Your task to perform on an android device: Go to sound settings Image 0: 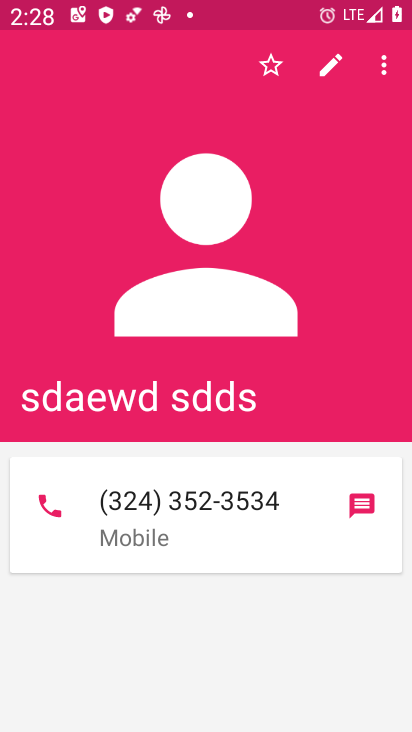
Step 0: press home button
Your task to perform on an android device: Go to sound settings Image 1: 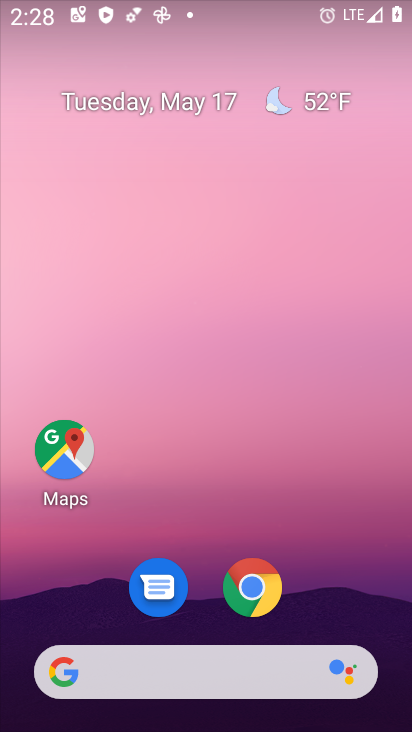
Step 1: drag from (371, 560) to (237, 7)
Your task to perform on an android device: Go to sound settings Image 2: 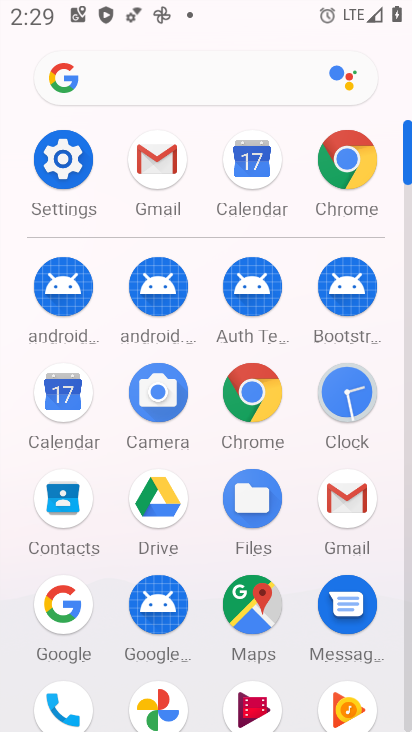
Step 2: click (73, 209)
Your task to perform on an android device: Go to sound settings Image 3: 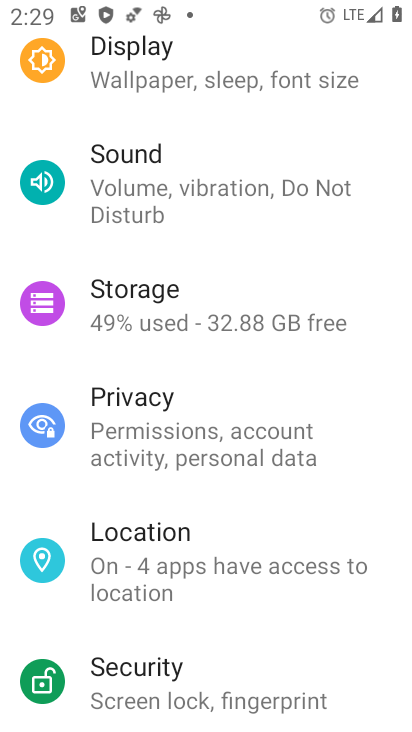
Step 3: click (169, 226)
Your task to perform on an android device: Go to sound settings Image 4: 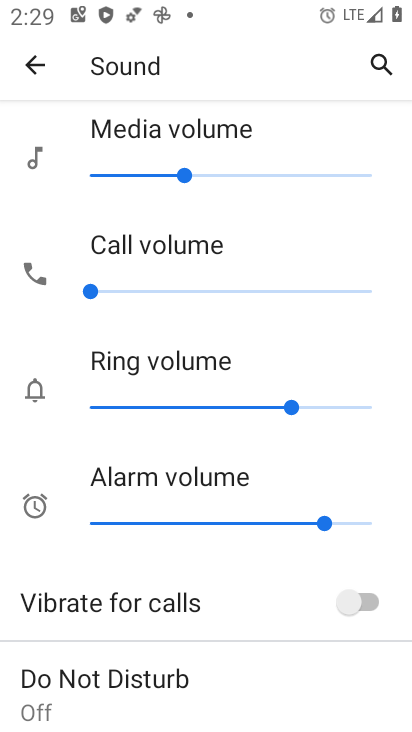
Step 4: click (11, 69)
Your task to perform on an android device: Go to sound settings Image 5: 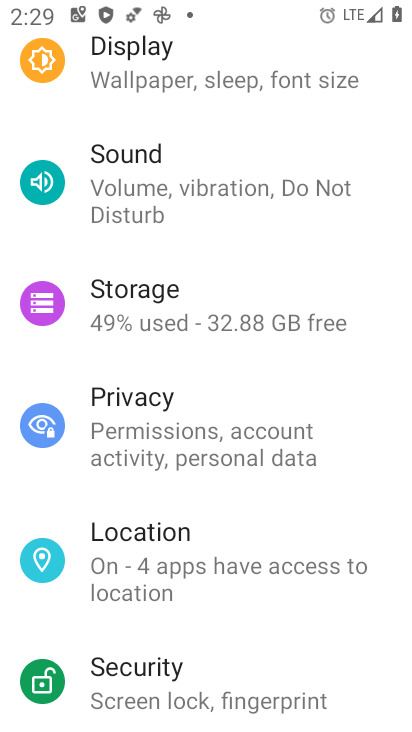
Step 5: click (187, 194)
Your task to perform on an android device: Go to sound settings Image 6: 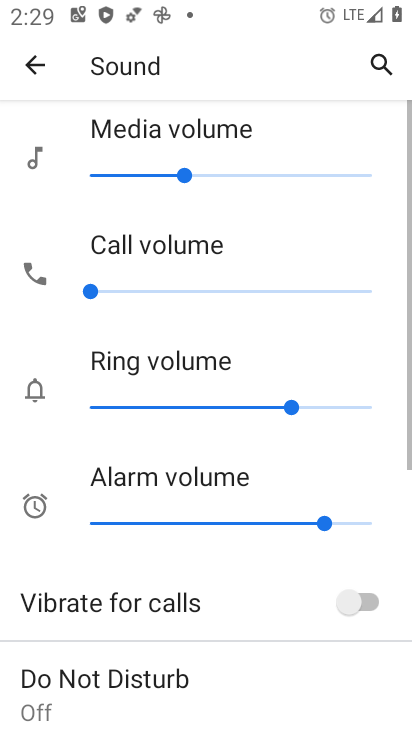
Step 6: task complete